Your task to perform on an android device: turn on data saver in the chrome app Image 0: 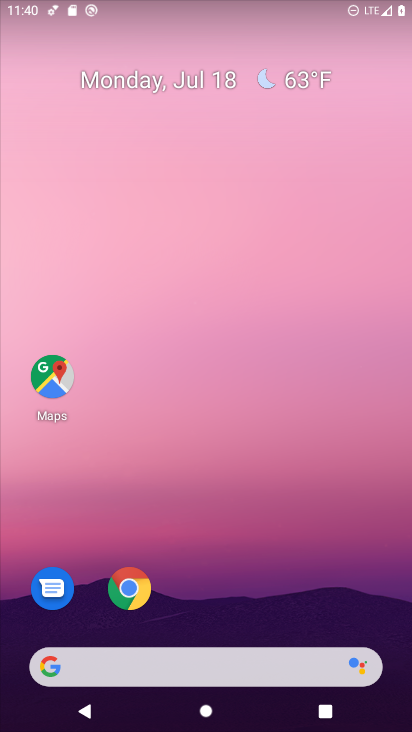
Step 0: click (130, 589)
Your task to perform on an android device: turn on data saver in the chrome app Image 1: 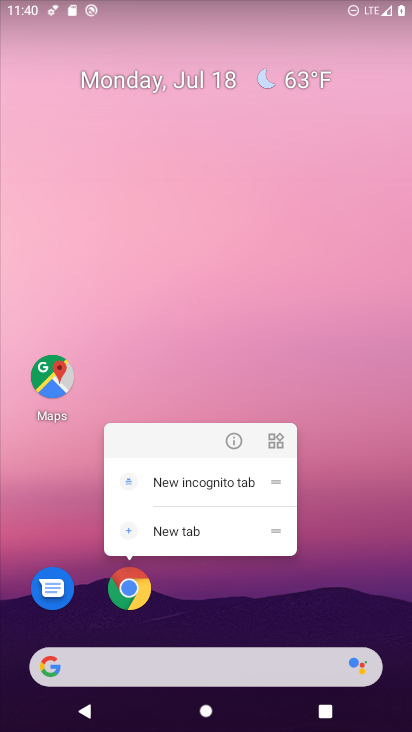
Step 1: click (132, 595)
Your task to perform on an android device: turn on data saver in the chrome app Image 2: 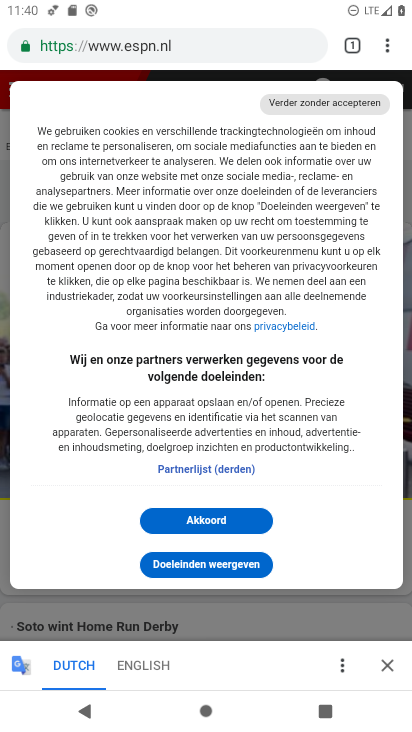
Step 2: click (383, 51)
Your task to perform on an android device: turn on data saver in the chrome app Image 3: 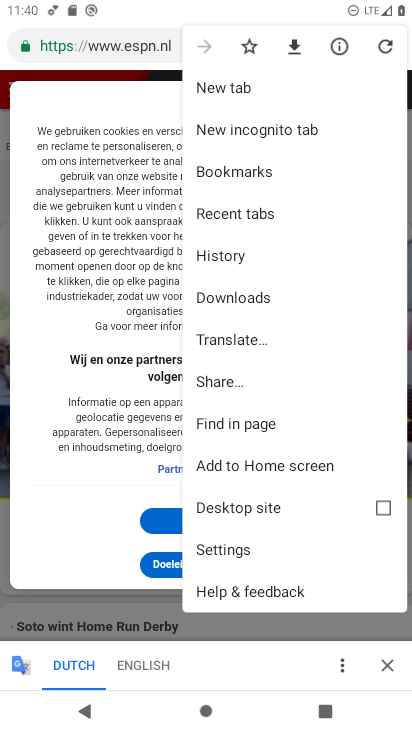
Step 3: click (247, 552)
Your task to perform on an android device: turn on data saver in the chrome app Image 4: 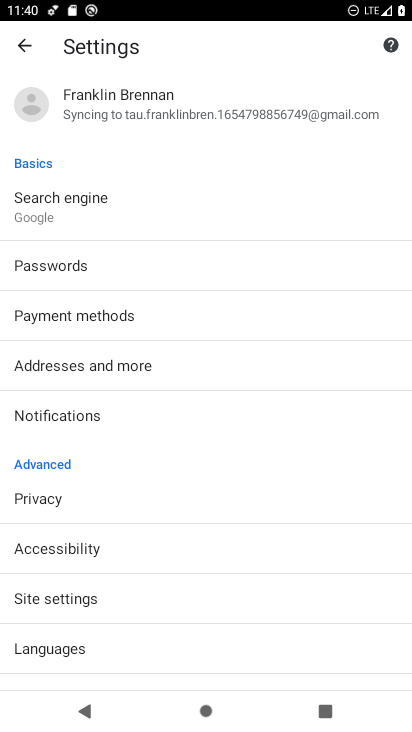
Step 4: drag from (74, 654) to (182, 197)
Your task to perform on an android device: turn on data saver in the chrome app Image 5: 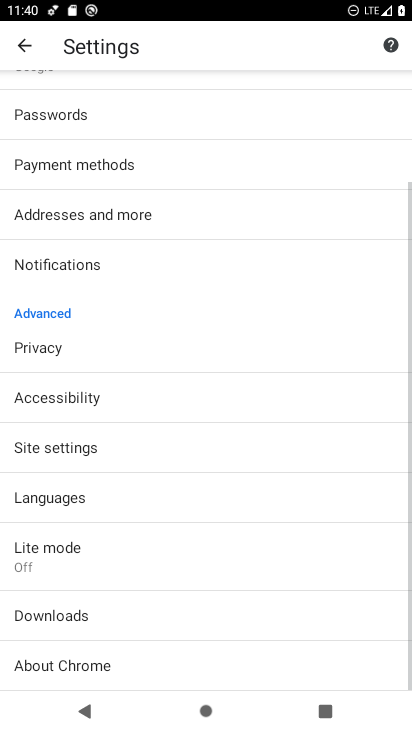
Step 5: click (31, 554)
Your task to perform on an android device: turn on data saver in the chrome app Image 6: 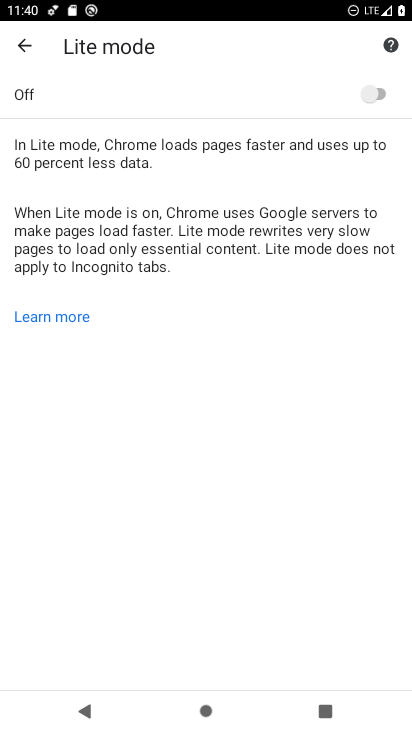
Step 6: click (382, 95)
Your task to perform on an android device: turn on data saver in the chrome app Image 7: 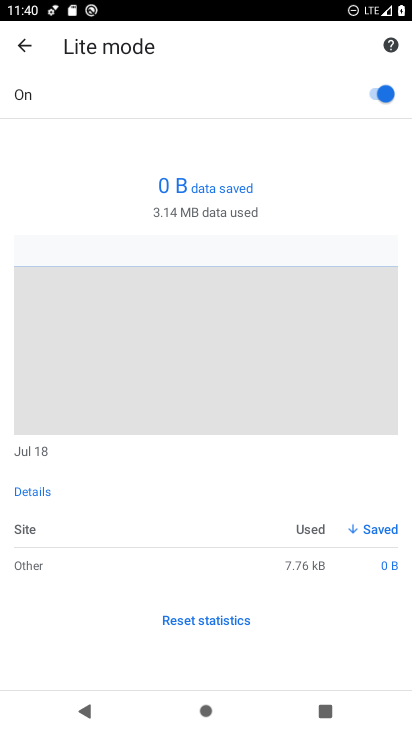
Step 7: task complete